Your task to perform on an android device: Open CNN.com Image 0: 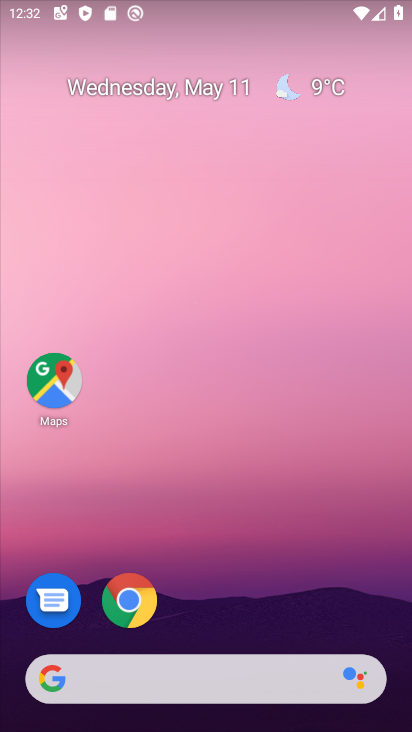
Step 0: click (166, 677)
Your task to perform on an android device: Open CNN.com Image 1: 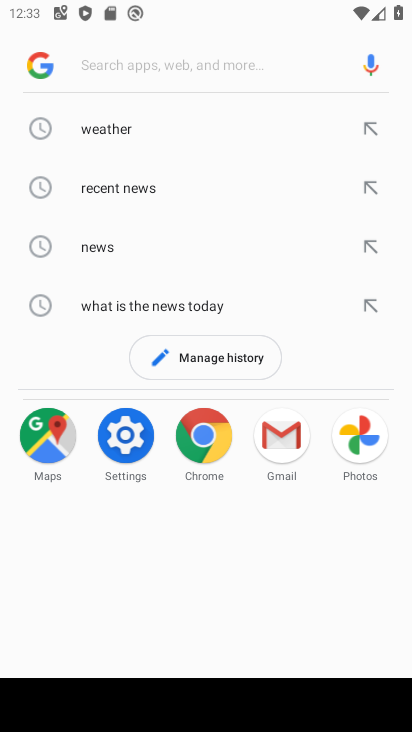
Step 1: type "cnn.com"
Your task to perform on an android device: Open CNN.com Image 2: 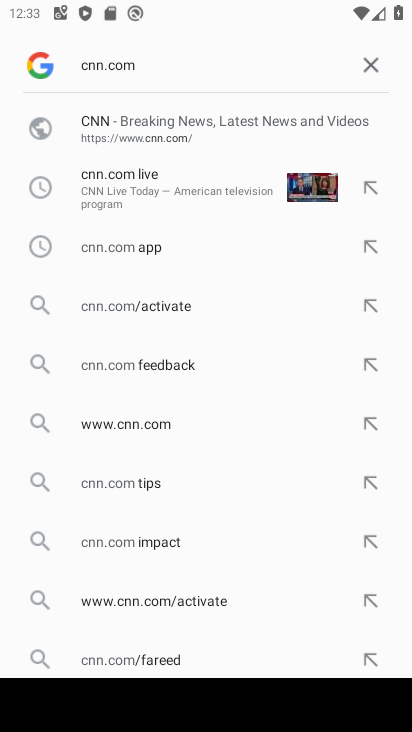
Step 2: click (298, 118)
Your task to perform on an android device: Open CNN.com Image 3: 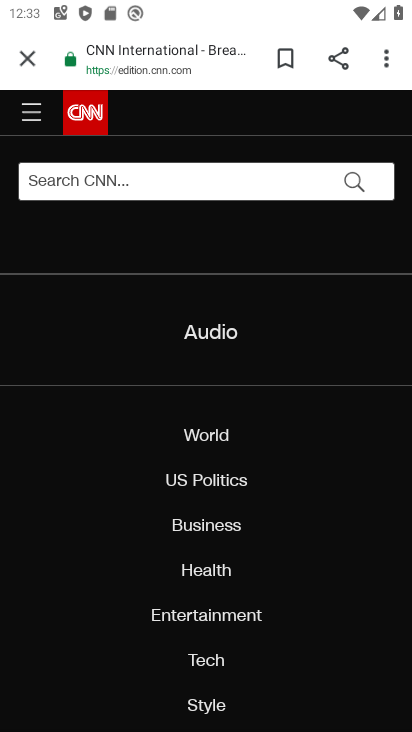
Step 3: task complete